Your task to perform on an android device: toggle airplane mode Image 0: 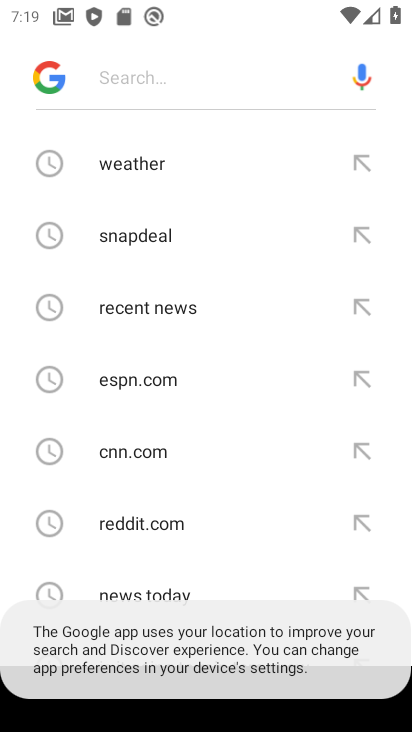
Step 0: press home button
Your task to perform on an android device: toggle airplane mode Image 1: 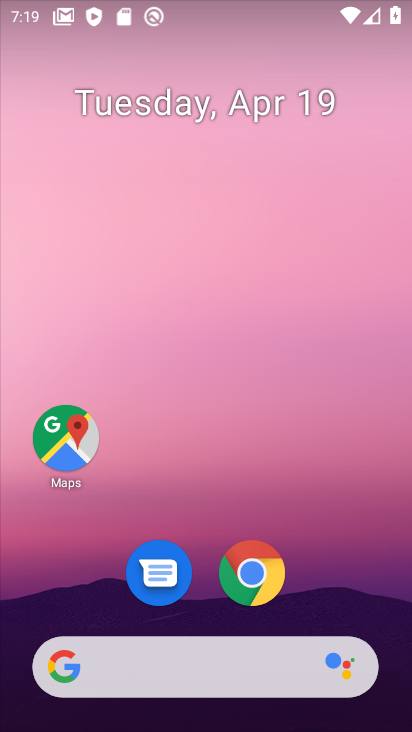
Step 1: drag from (281, 653) to (275, 280)
Your task to perform on an android device: toggle airplane mode Image 2: 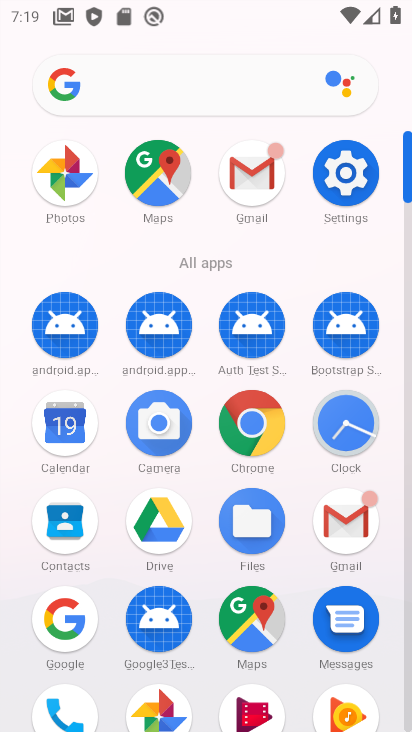
Step 2: click (351, 177)
Your task to perform on an android device: toggle airplane mode Image 3: 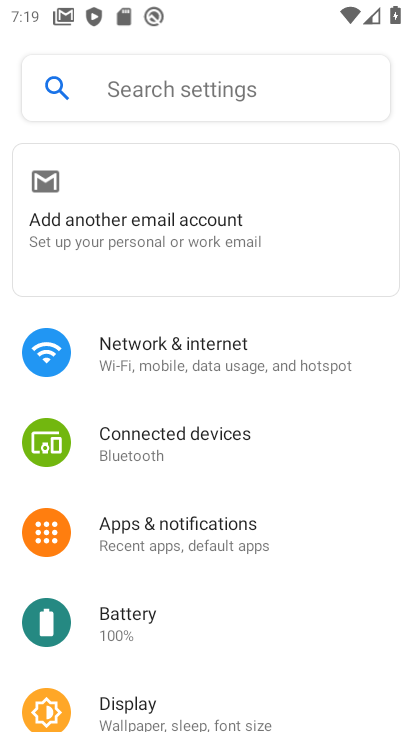
Step 3: click (154, 342)
Your task to perform on an android device: toggle airplane mode Image 4: 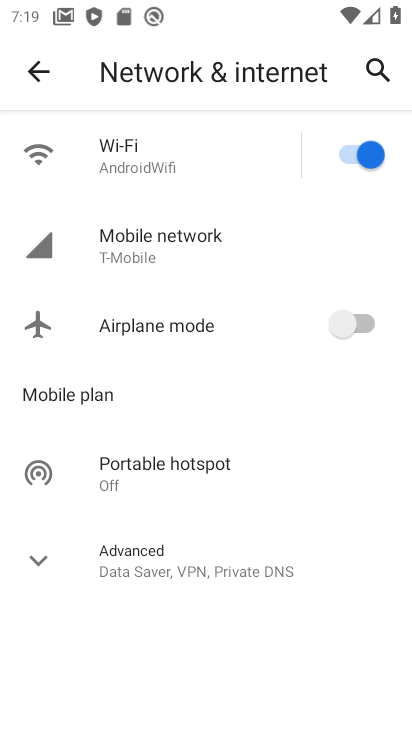
Step 4: click (249, 321)
Your task to perform on an android device: toggle airplane mode Image 5: 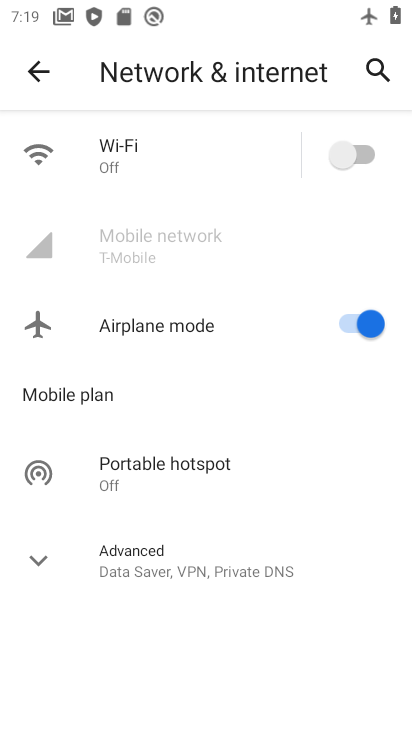
Step 5: task complete